Your task to perform on an android device: Go to Yahoo.com Image 0: 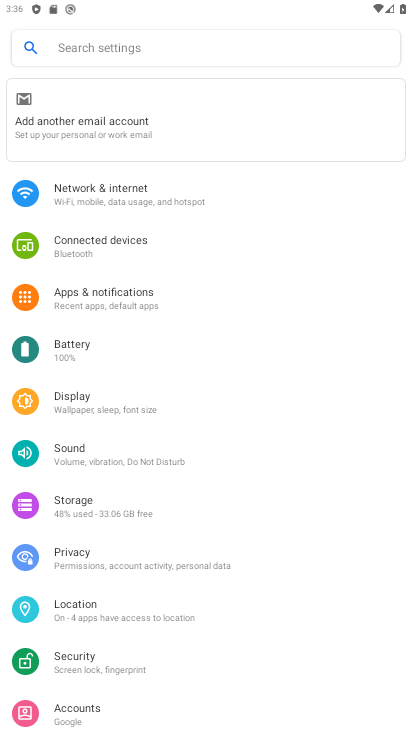
Step 0: press home button
Your task to perform on an android device: Go to Yahoo.com Image 1: 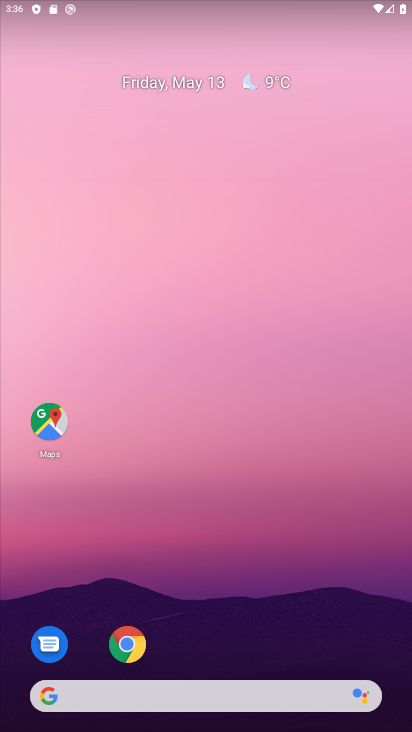
Step 1: click (138, 647)
Your task to perform on an android device: Go to Yahoo.com Image 2: 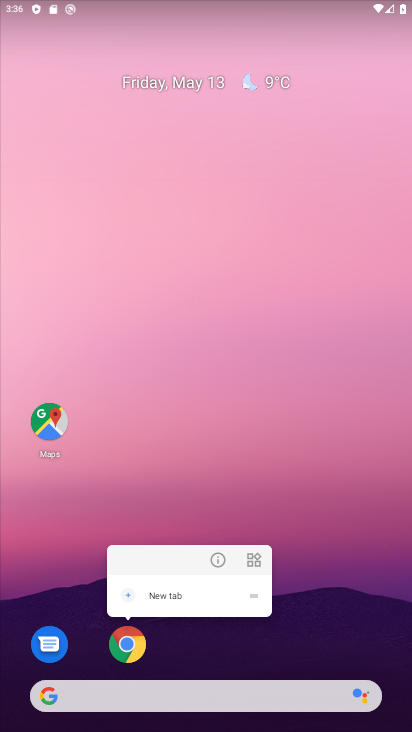
Step 2: click (129, 657)
Your task to perform on an android device: Go to Yahoo.com Image 3: 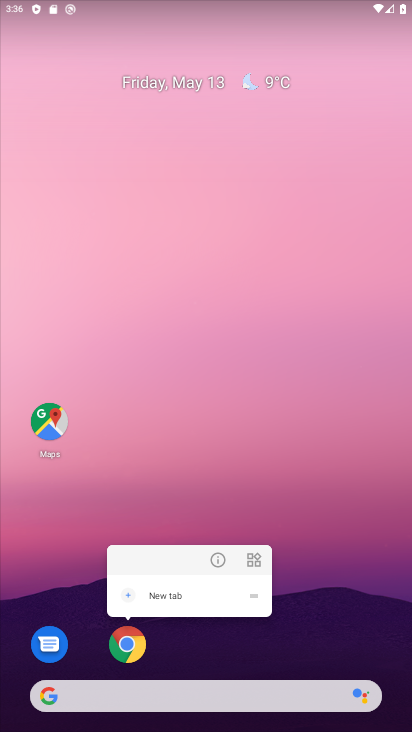
Step 3: click (129, 657)
Your task to perform on an android device: Go to Yahoo.com Image 4: 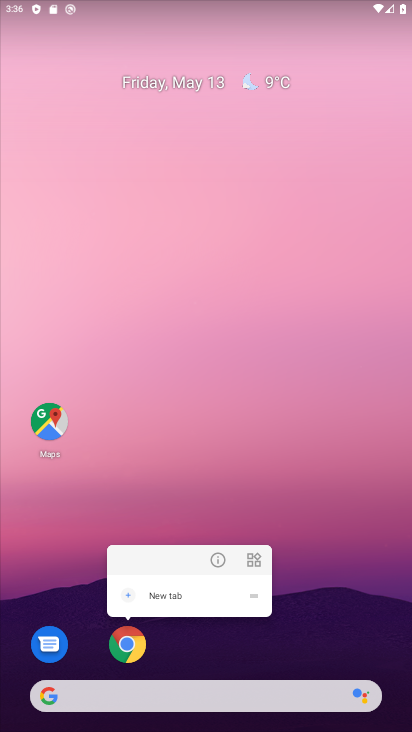
Step 4: click (135, 645)
Your task to perform on an android device: Go to Yahoo.com Image 5: 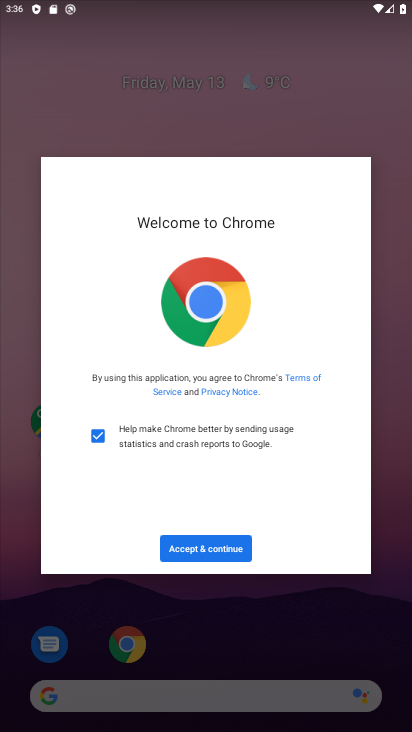
Step 5: click (218, 551)
Your task to perform on an android device: Go to Yahoo.com Image 6: 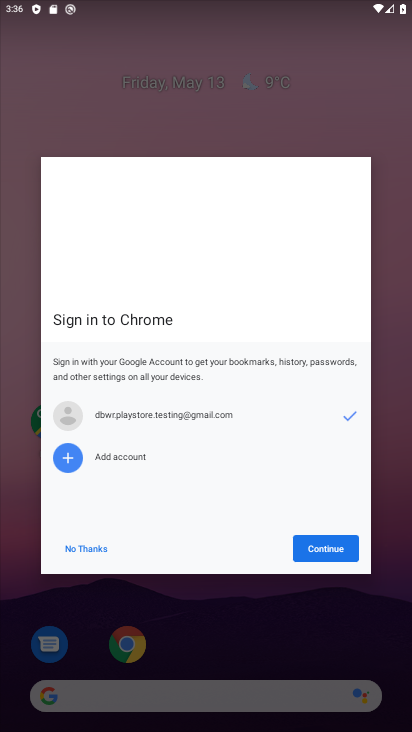
Step 6: click (331, 544)
Your task to perform on an android device: Go to Yahoo.com Image 7: 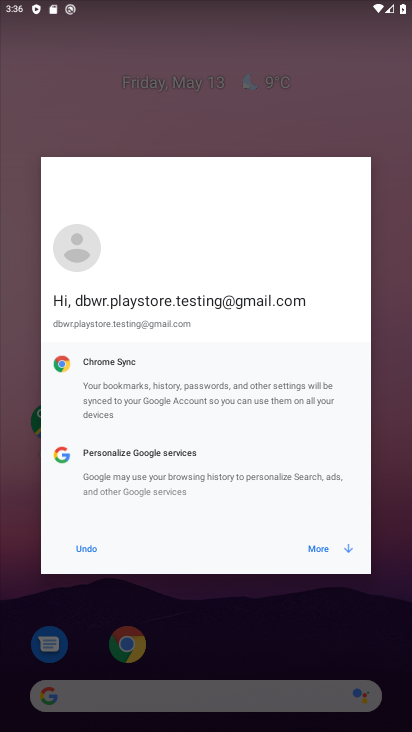
Step 7: click (325, 547)
Your task to perform on an android device: Go to Yahoo.com Image 8: 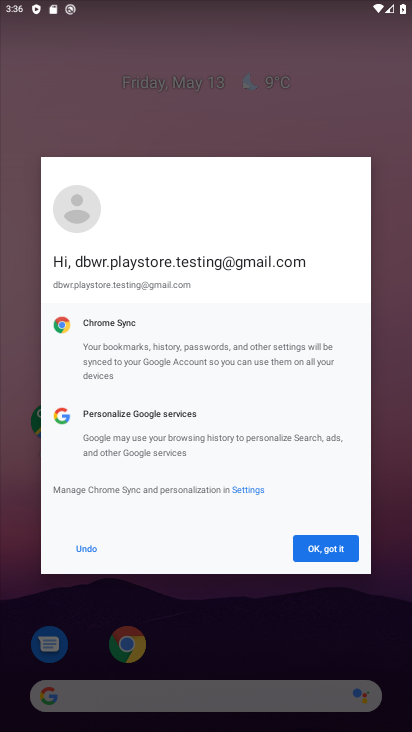
Step 8: click (330, 550)
Your task to perform on an android device: Go to Yahoo.com Image 9: 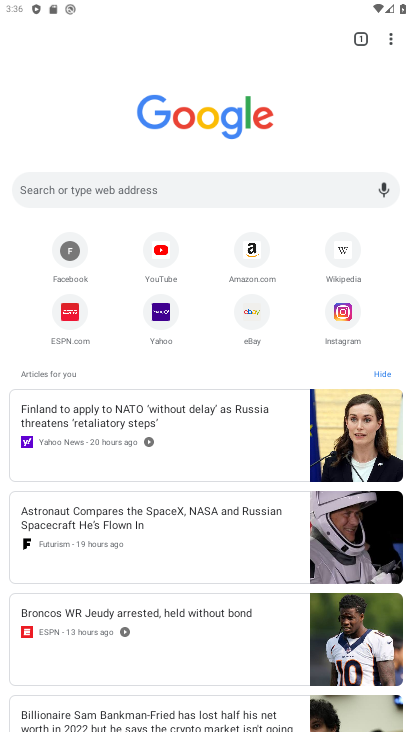
Step 9: click (159, 321)
Your task to perform on an android device: Go to Yahoo.com Image 10: 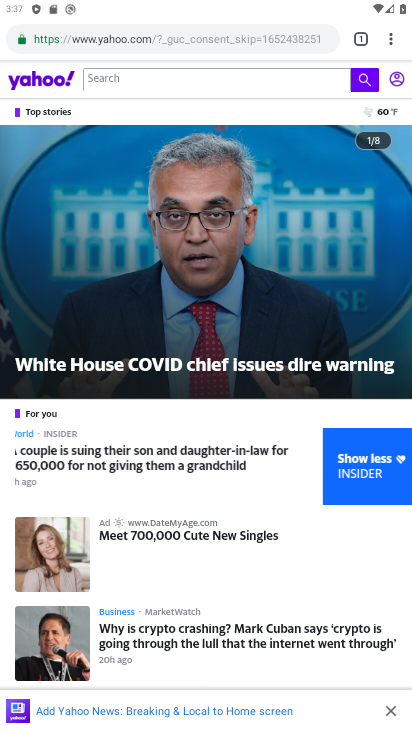
Step 10: task complete